Your task to perform on an android device: find photos in the google photos app Image 0: 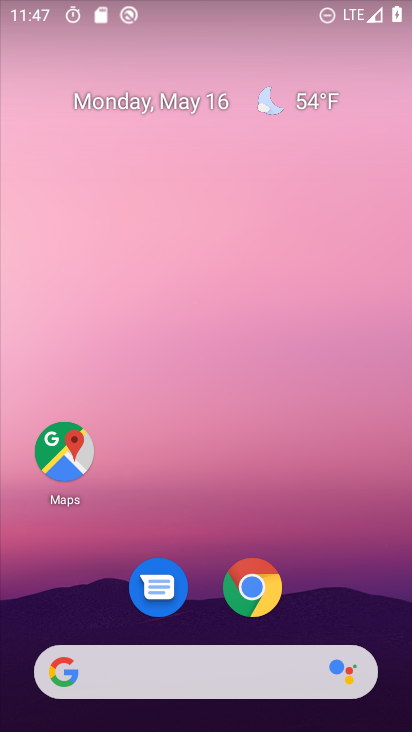
Step 0: drag from (196, 621) to (177, 320)
Your task to perform on an android device: find photos in the google photos app Image 1: 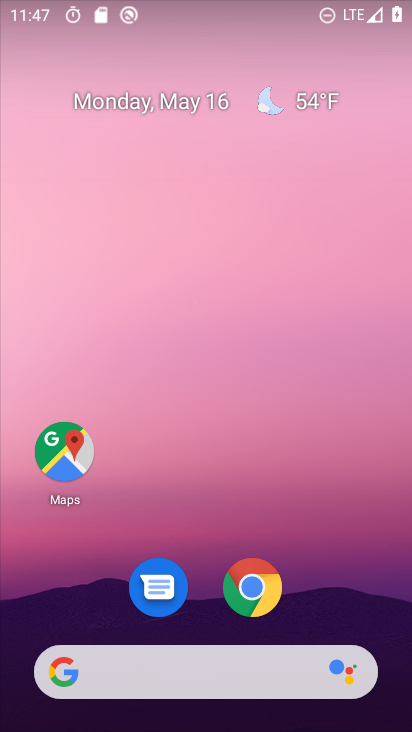
Step 1: drag from (207, 613) to (397, 53)
Your task to perform on an android device: find photos in the google photos app Image 2: 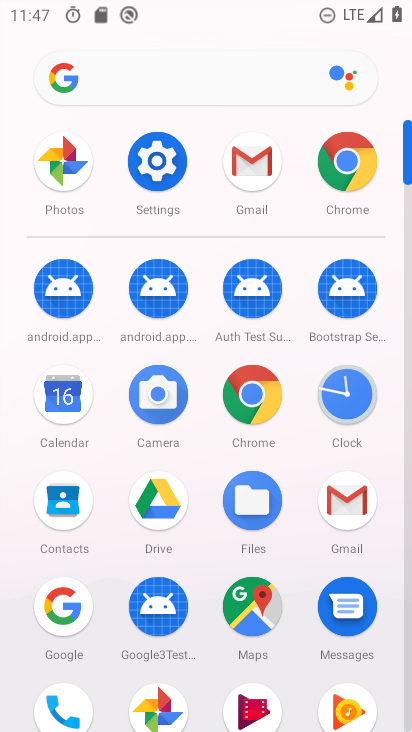
Step 2: drag from (187, 661) to (235, 220)
Your task to perform on an android device: find photos in the google photos app Image 3: 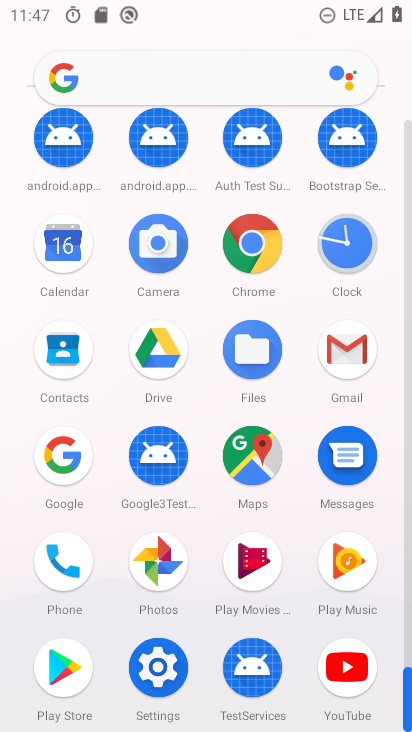
Step 3: click (156, 575)
Your task to perform on an android device: find photos in the google photos app Image 4: 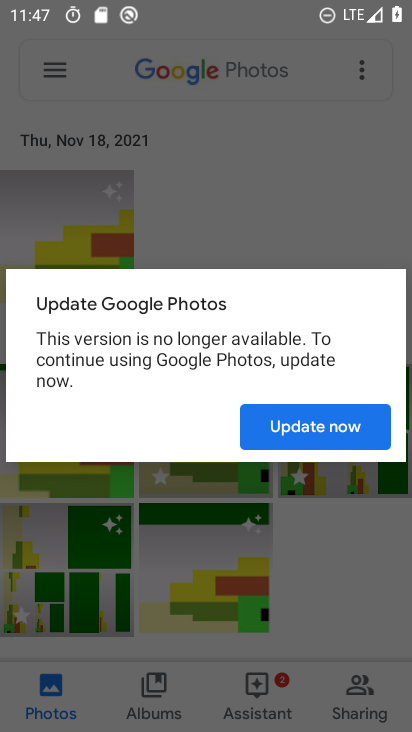
Step 4: click (297, 411)
Your task to perform on an android device: find photos in the google photos app Image 5: 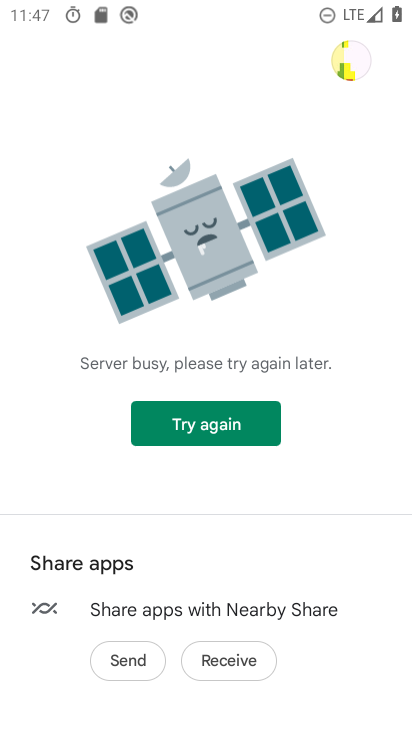
Step 5: click (182, 417)
Your task to perform on an android device: find photos in the google photos app Image 6: 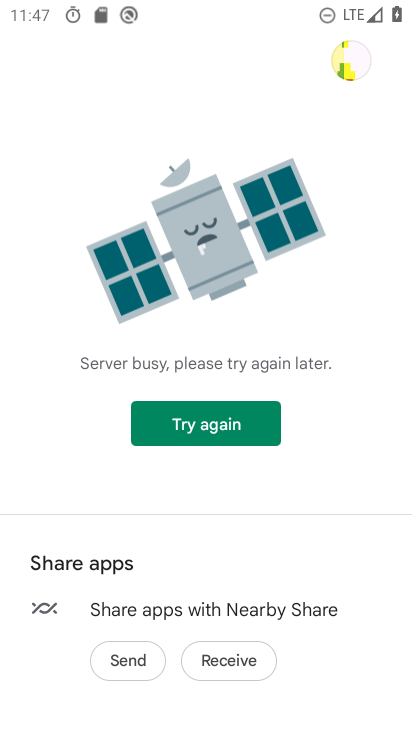
Step 6: click (199, 405)
Your task to perform on an android device: find photos in the google photos app Image 7: 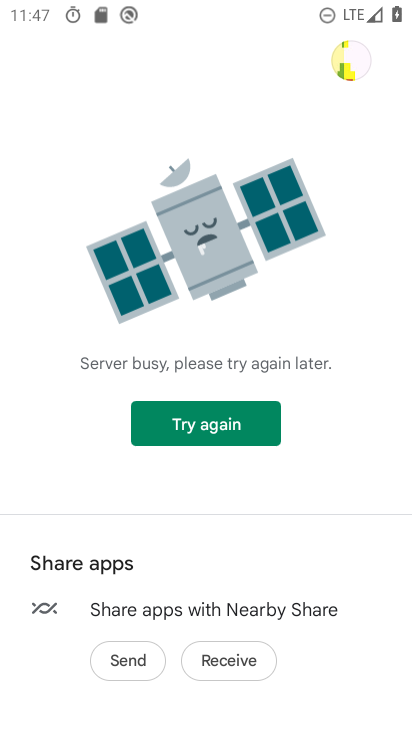
Step 7: task complete